Your task to perform on an android device: Open the web browser Image 0: 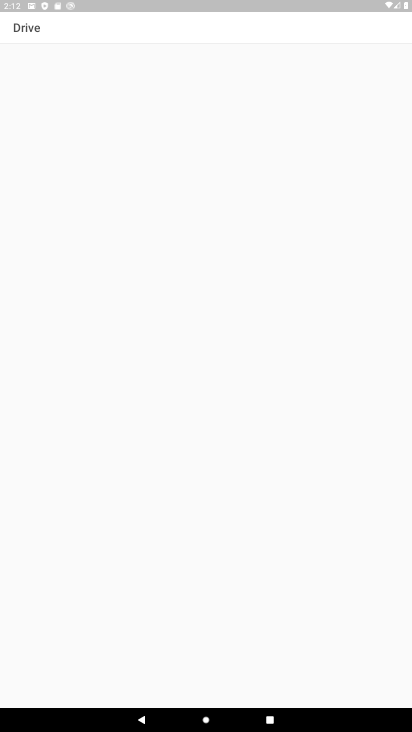
Step 0: press home button
Your task to perform on an android device: Open the web browser Image 1: 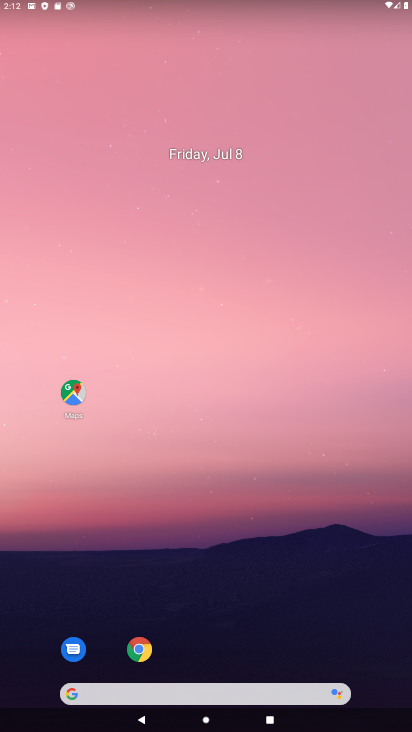
Step 1: drag from (312, 577) to (297, 104)
Your task to perform on an android device: Open the web browser Image 2: 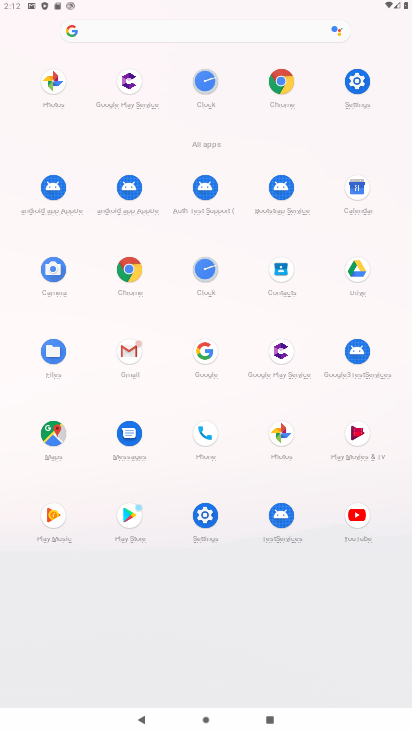
Step 2: click (130, 264)
Your task to perform on an android device: Open the web browser Image 3: 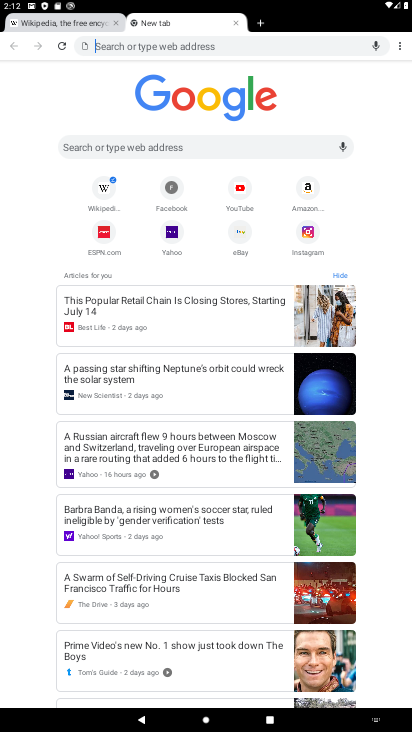
Step 3: task complete